Your task to perform on an android device: turn notification dots on Image 0: 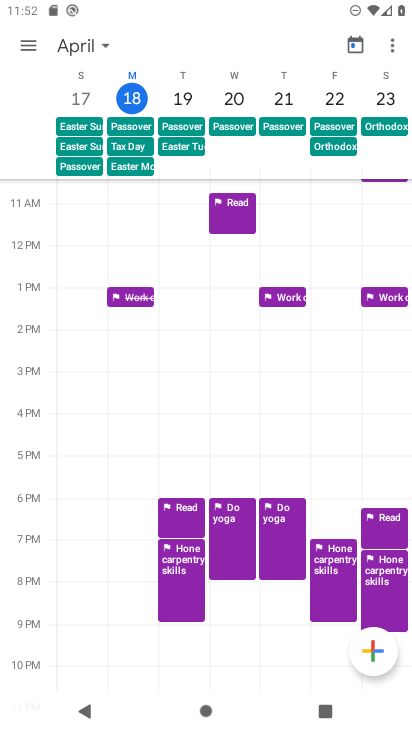
Step 0: press back button
Your task to perform on an android device: turn notification dots on Image 1: 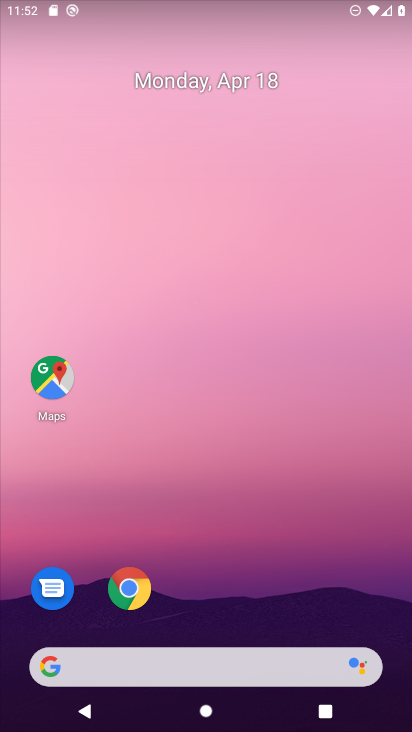
Step 1: drag from (206, 566) to (156, 0)
Your task to perform on an android device: turn notification dots on Image 2: 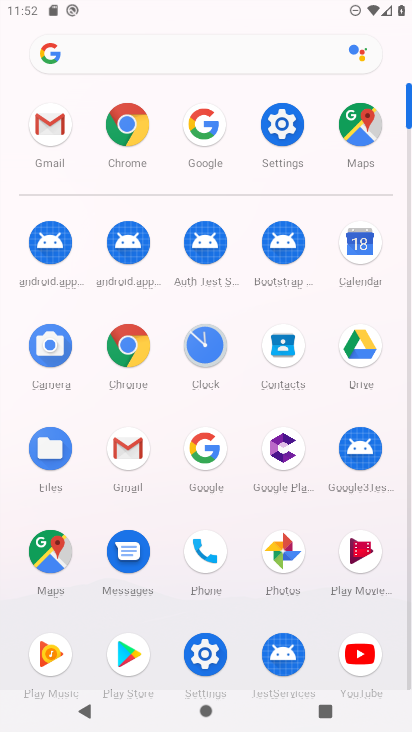
Step 2: click (282, 121)
Your task to perform on an android device: turn notification dots on Image 3: 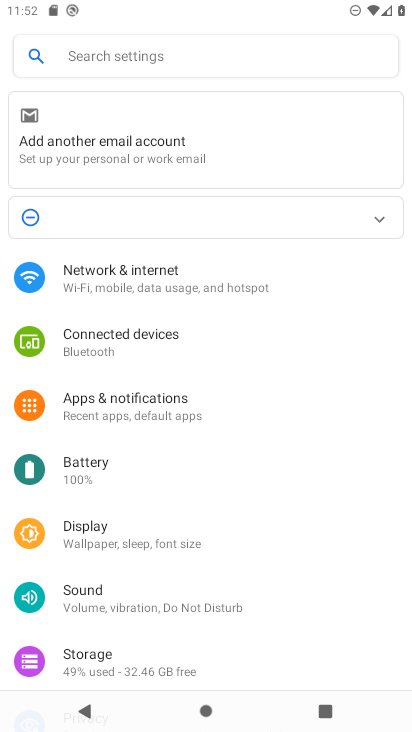
Step 3: click (187, 407)
Your task to perform on an android device: turn notification dots on Image 4: 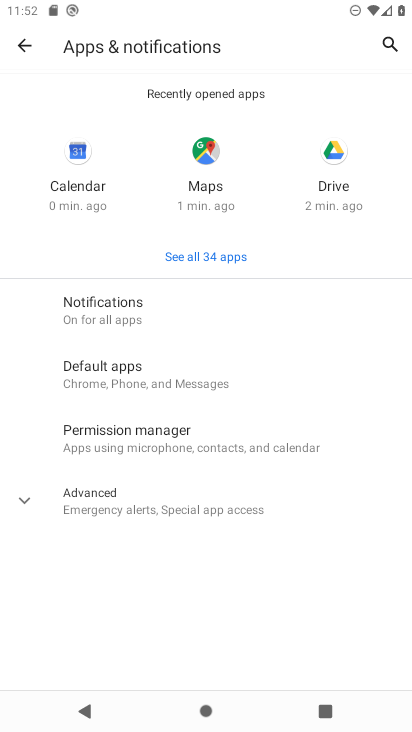
Step 4: click (132, 310)
Your task to perform on an android device: turn notification dots on Image 5: 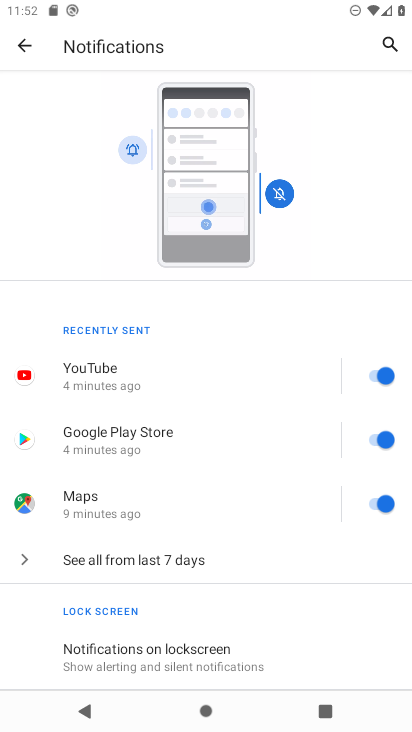
Step 5: drag from (258, 502) to (274, 213)
Your task to perform on an android device: turn notification dots on Image 6: 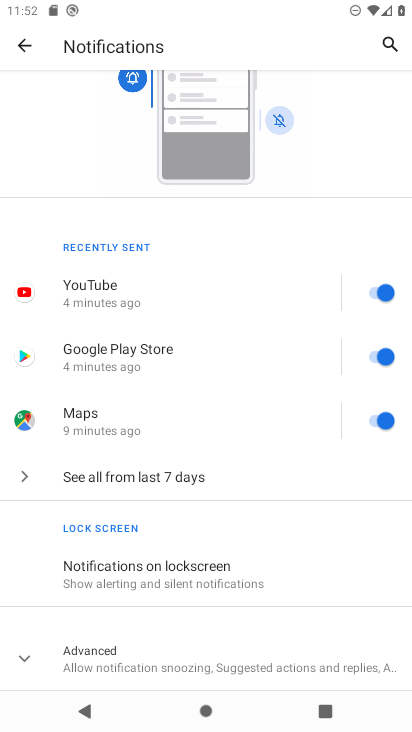
Step 6: click (171, 657)
Your task to perform on an android device: turn notification dots on Image 7: 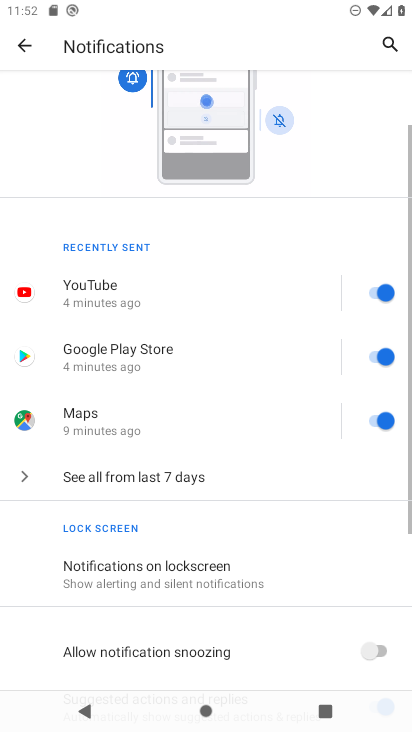
Step 7: task complete